Your task to perform on an android device: turn on location history Image 0: 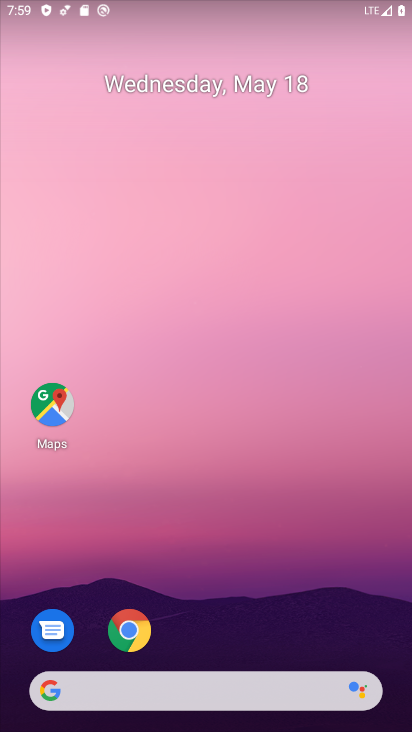
Step 0: press home button
Your task to perform on an android device: turn on location history Image 1: 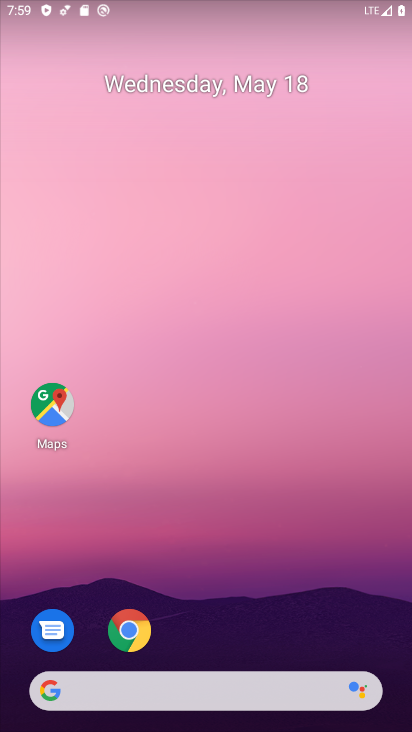
Step 1: click (61, 411)
Your task to perform on an android device: turn on location history Image 2: 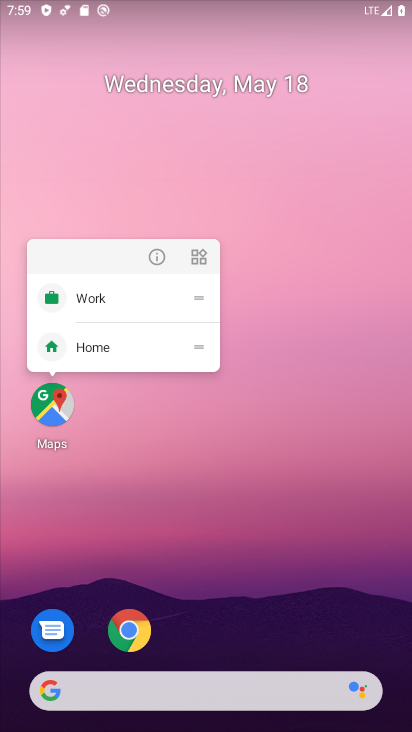
Step 2: click (49, 408)
Your task to perform on an android device: turn on location history Image 3: 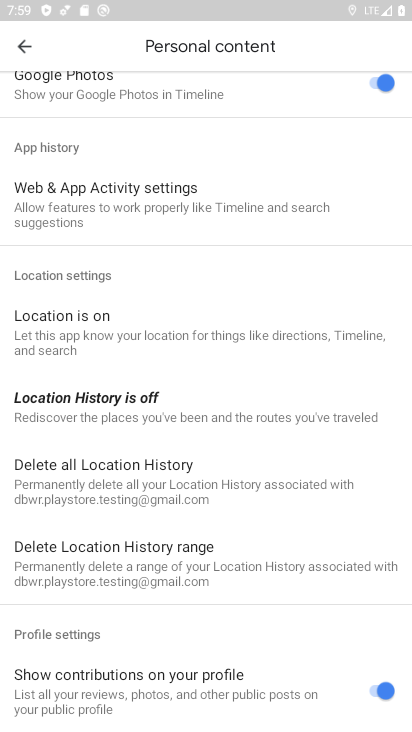
Step 3: click (123, 414)
Your task to perform on an android device: turn on location history Image 4: 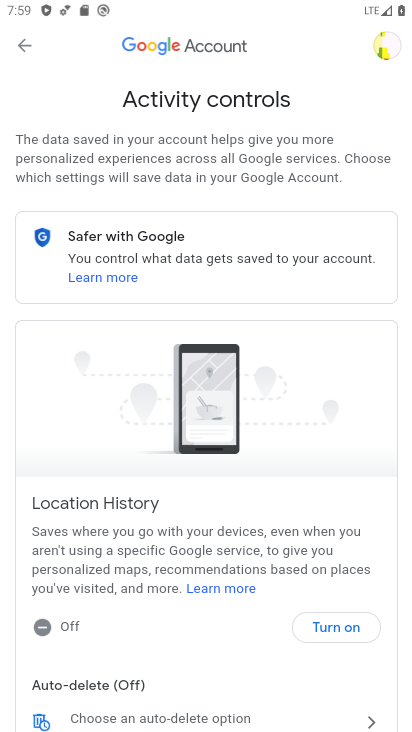
Step 4: click (325, 621)
Your task to perform on an android device: turn on location history Image 5: 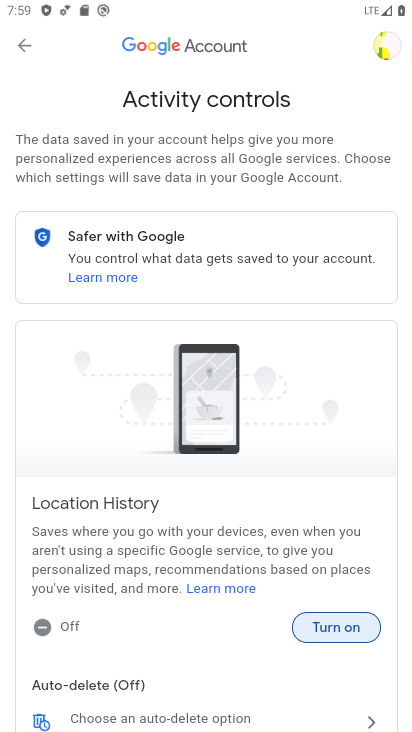
Step 5: click (328, 628)
Your task to perform on an android device: turn on location history Image 6: 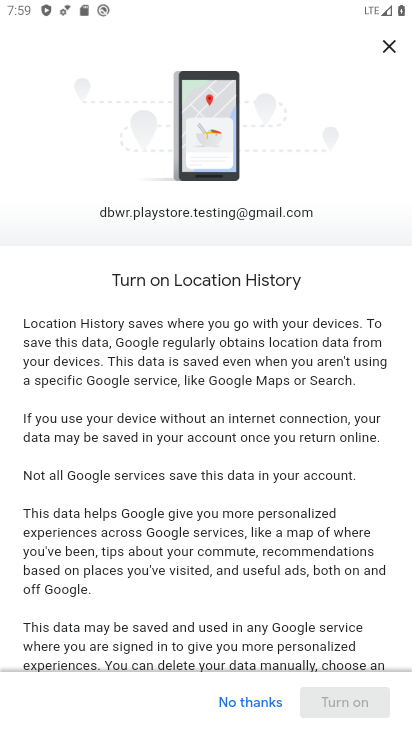
Step 6: drag from (277, 616) to (321, 208)
Your task to perform on an android device: turn on location history Image 7: 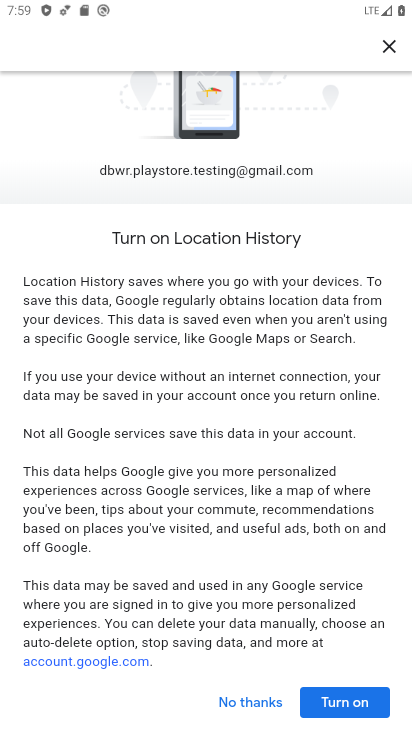
Step 7: click (344, 699)
Your task to perform on an android device: turn on location history Image 8: 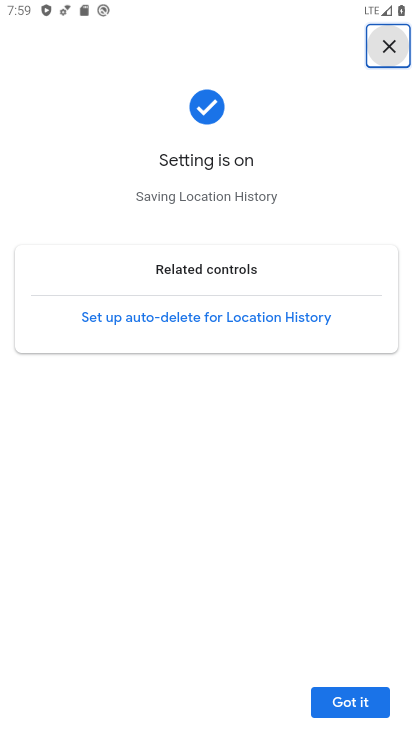
Step 8: click (354, 701)
Your task to perform on an android device: turn on location history Image 9: 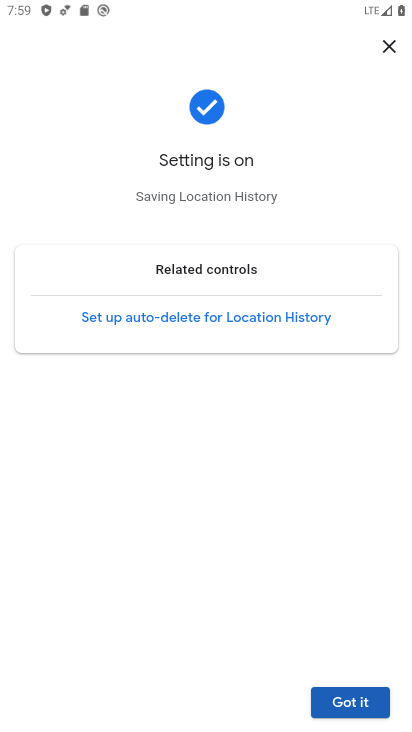
Step 9: click (360, 703)
Your task to perform on an android device: turn on location history Image 10: 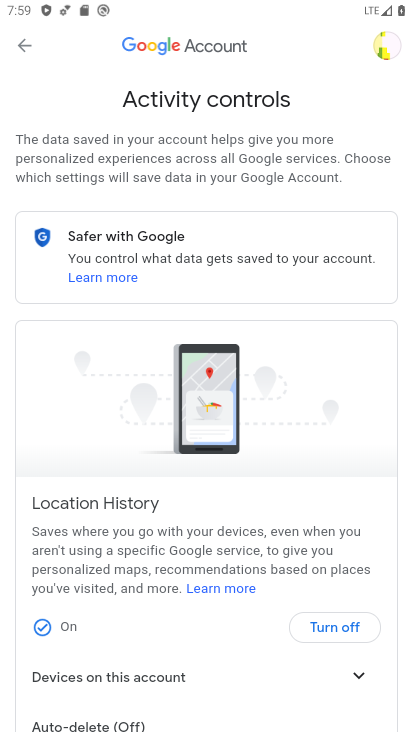
Step 10: task complete